Your task to perform on an android device: Go to wifi settings Image 0: 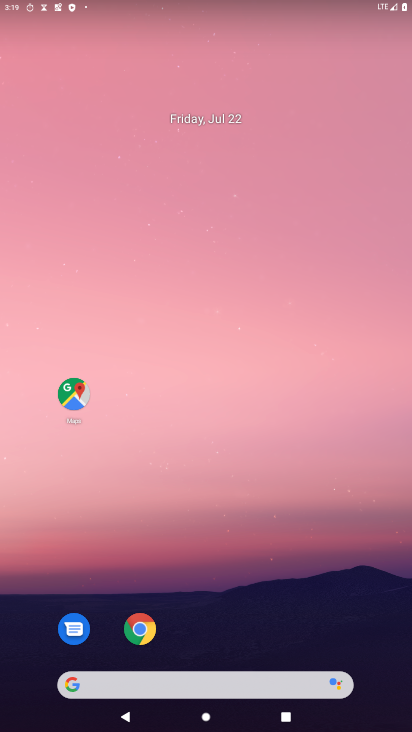
Step 0: drag from (299, 679) to (343, 70)
Your task to perform on an android device: Go to wifi settings Image 1: 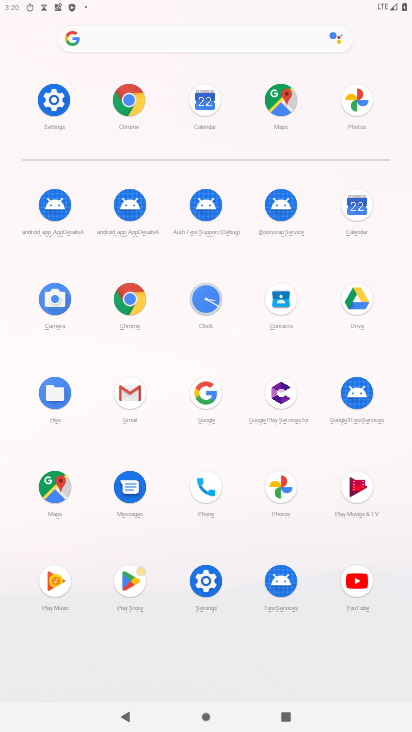
Step 1: click (66, 101)
Your task to perform on an android device: Go to wifi settings Image 2: 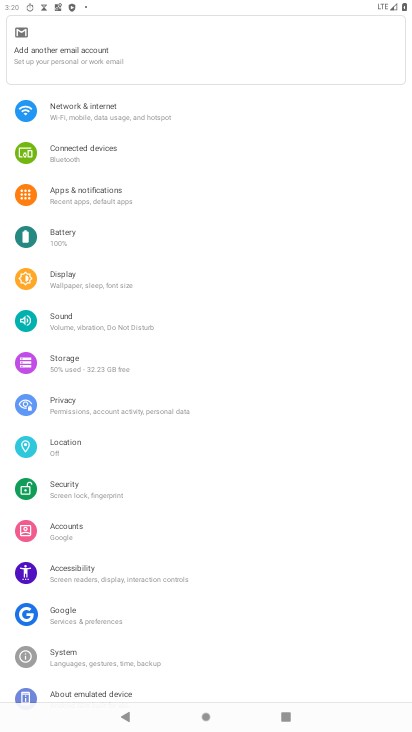
Step 2: click (142, 115)
Your task to perform on an android device: Go to wifi settings Image 3: 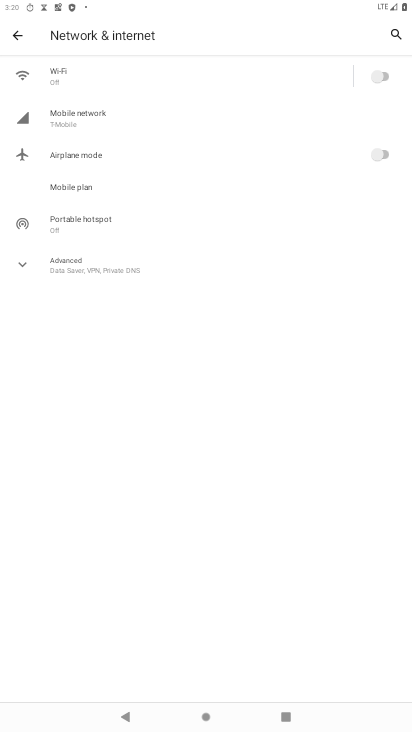
Step 3: task complete